Your task to perform on an android device: Check the weather Image 0: 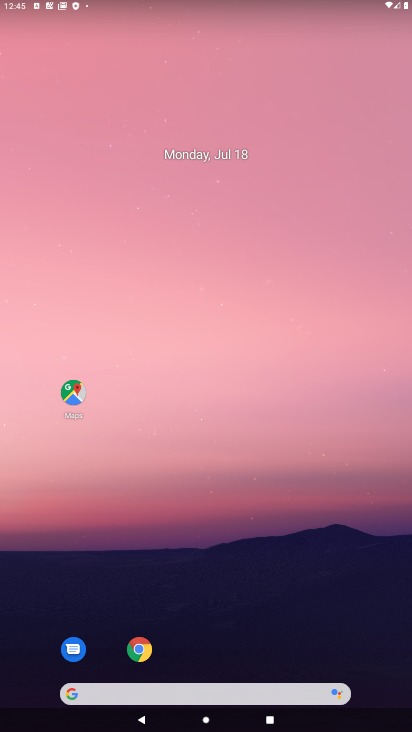
Step 0: click (164, 690)
Your task to perform on an android device: Check the weather Image 1: 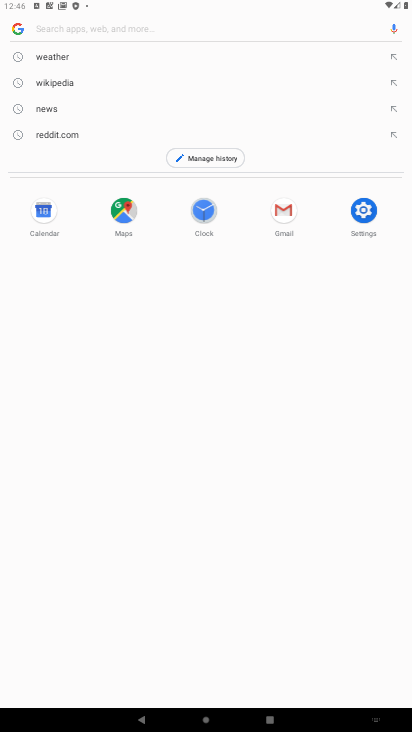
Step 1: click (35, 54)
Your task to perform on an android device: Check the weather Image 2: 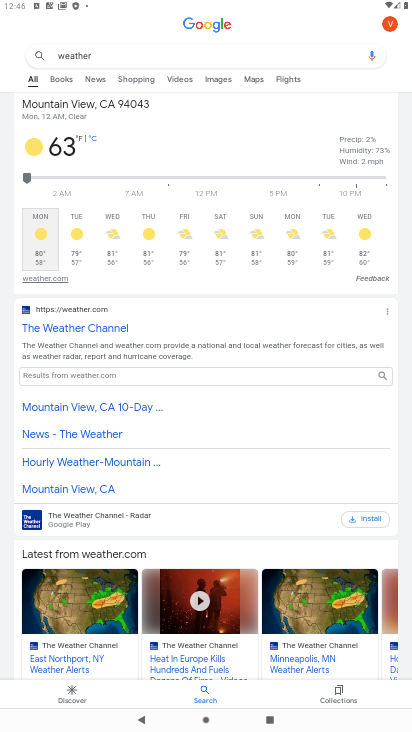
Step 2: task complete